Your task to perform on an android device: snooze an email in the gmail app Image 0: 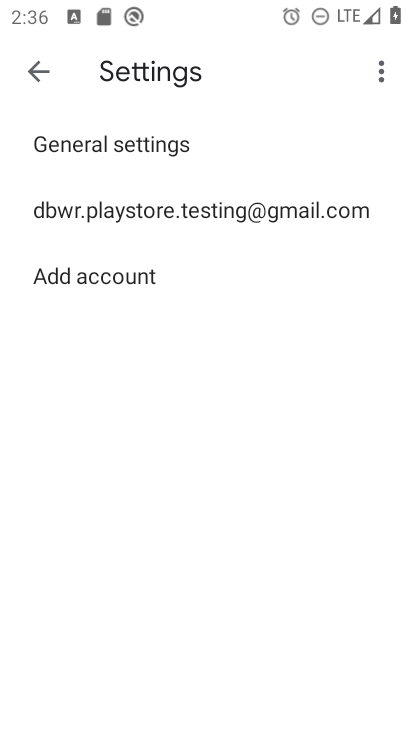
Step 0: press home button
Your task to perform on an android device: snooze an email in the gmail app Image 1: 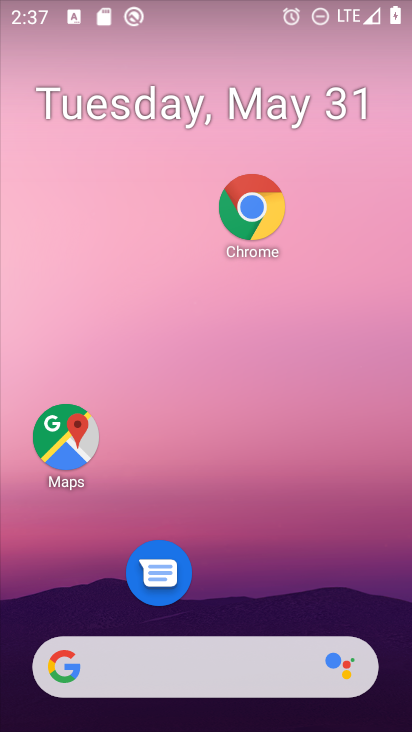
Step 1: drag from (261, 605) to (292, 275)
Your task to perform on an android device: snooze an email in the gmail app Image 2: 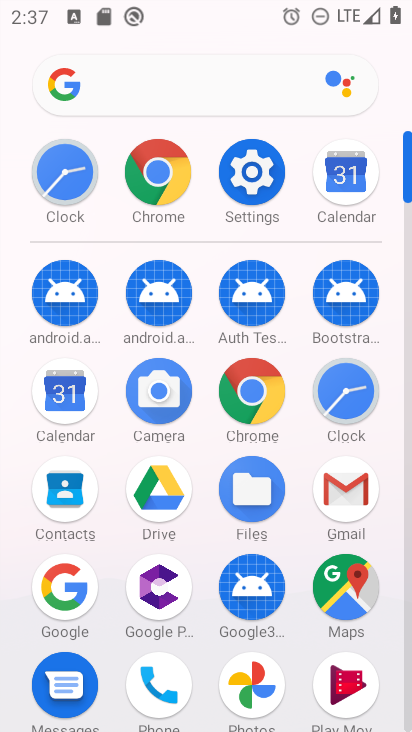
Step 2: click (365, 512)
Your task to perform on an android device: snooze an email in the gmail app Image 3: 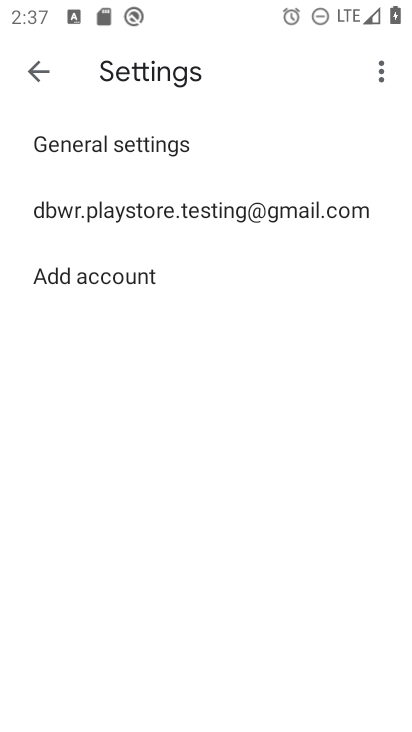
Step 3: click (31, 74)
Your task to perform on an android device: snooze an email in the gmail app Image 4: 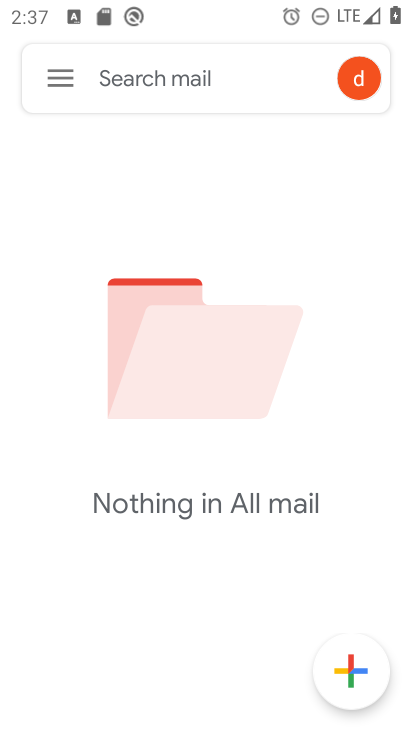
Step 4: click (68, 76)
Your task to perform on an android device: snooze an email in the gmail app Image 5: 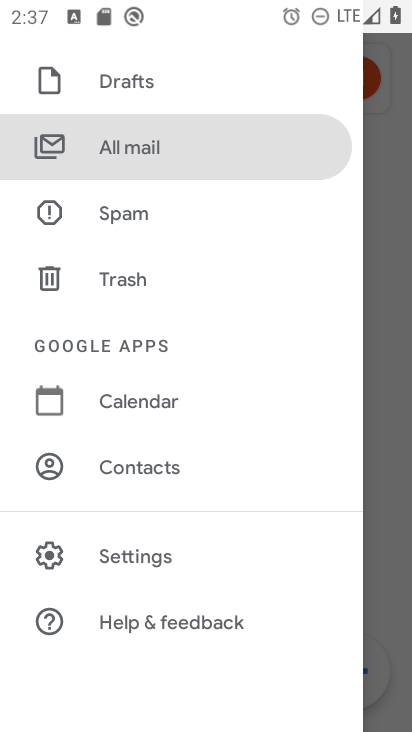
Step 5: click (187, 136)
Your task to perform on an android device: snooze an email in the gmail app Image 6: 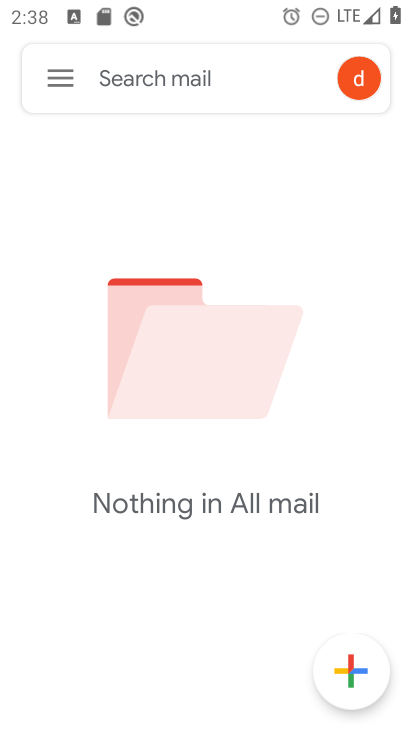
Step 6: task complete